Your task to perform on an android device: change notifications settings Image 0: 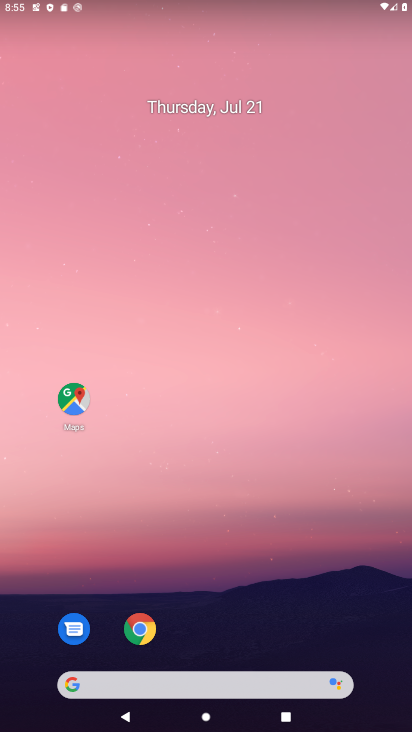
Step 0: drag from (259, 610) to (207, 297)
Your task to perform on an android device: change notifications settings Image 1: 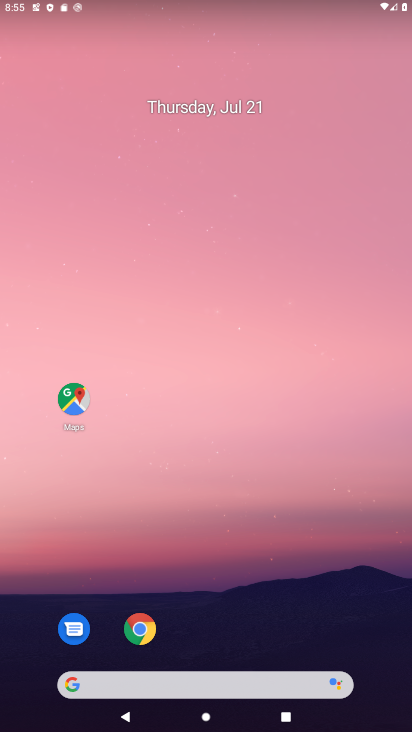
Step 1: drag from (251, 650) to (365, 97)
Your task to perform on an android device: change notifications settings Image 2: 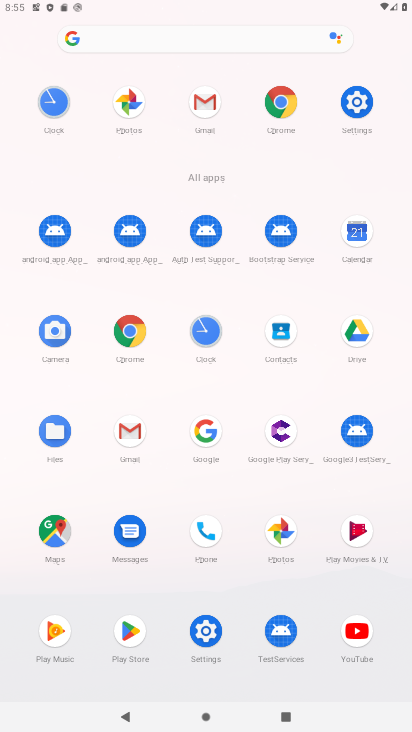
Step 2: click (369, 107)
Your task to perform on an android device: change notifications settings Image 3: 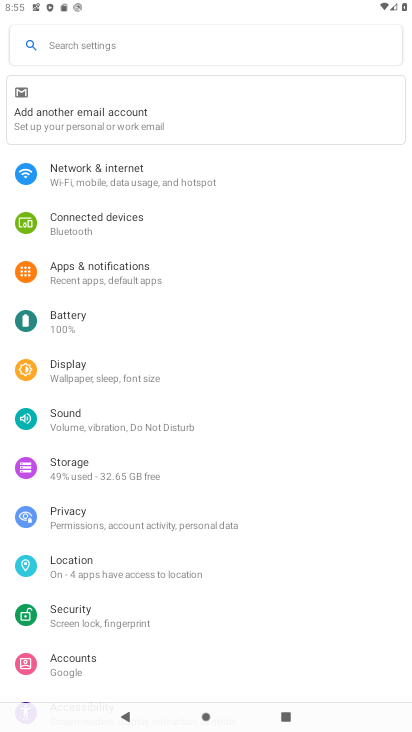
Step 3: click (74, 285)
Your task to perform on an android device: change notifications settings Image 4: 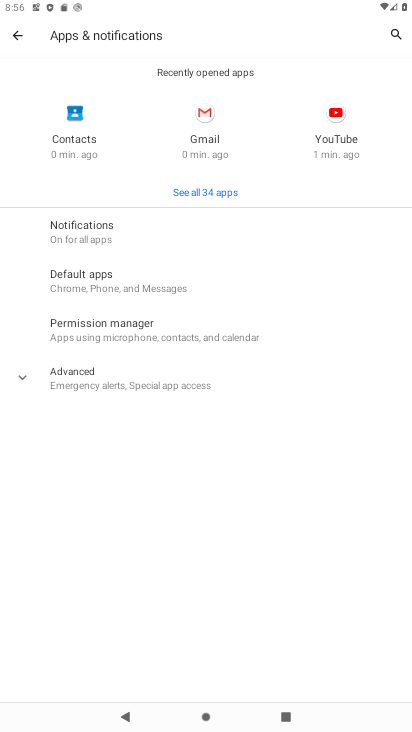
Step 4: task complete